Your task to perform on an android device: Open Google Chrome and open the bookmarks view Image 0: 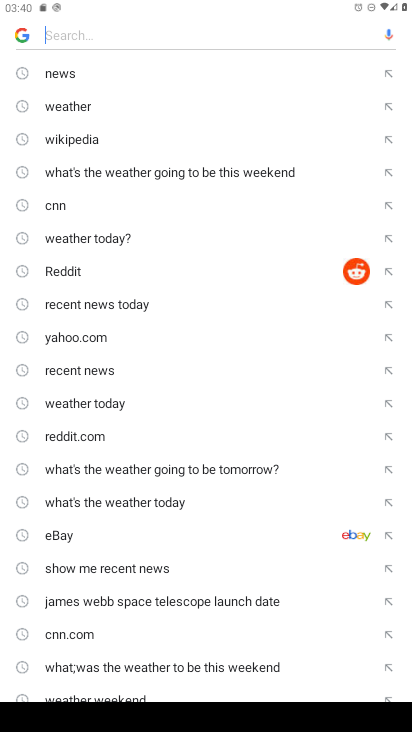
Step 0: press home button
Your task to perform on an android device: Open Google Chrome and open the bookmarks view Image 1: 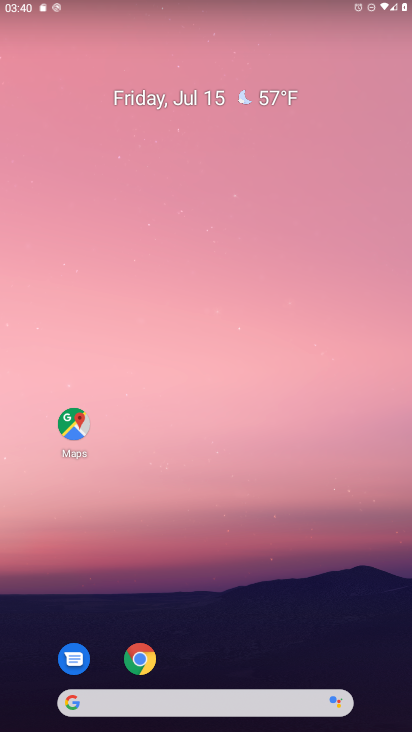
Step 1: click (142, 658)
Your task to perform on an android device: Open Google Chrome and open the bookmarks view Image 2: 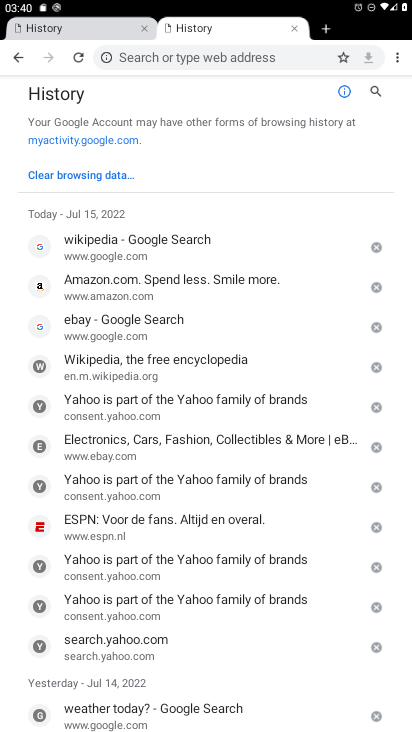
Step 2: click (401, 61)
Your task to perform on an android device: Open Google Chrome and open the bookmarks view Image 3: 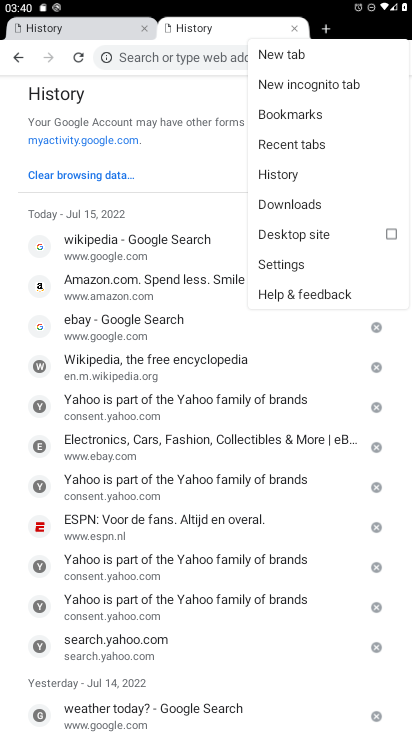
Step 3: click (293, 113)
Your task to perform on an android device: Open Google Chrome and open the bookmarks view Image 4: 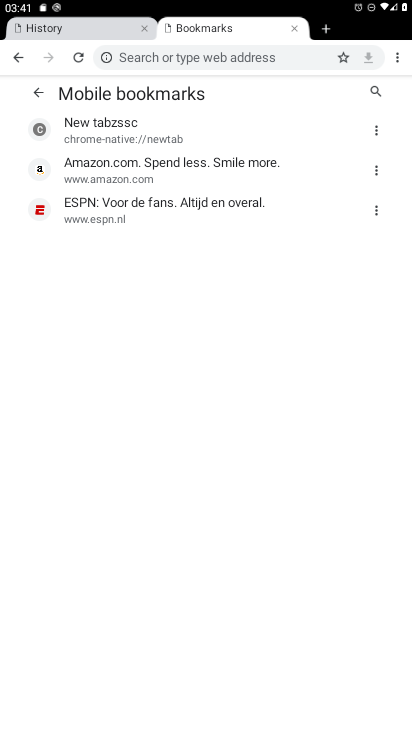
Step 4: task complete